Your task to perform on an android device: move an email to a new category in the gmail app Image 0: 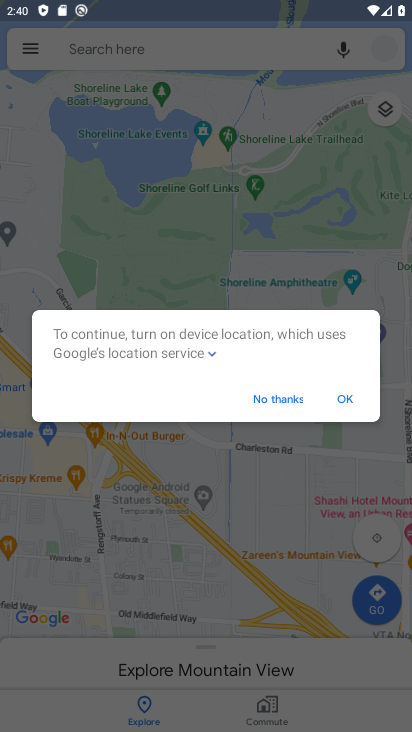
Step 0: drag from (296, 494) to (238, 218)
Your task to perform on an android device: move an email to a new category in the gmail app Image 1: 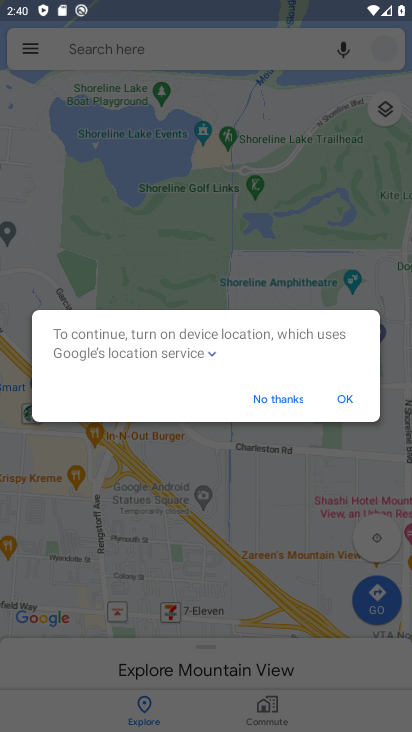
Step 1: click (346, 394)
Your task to perform on an android device: move an email to a new category in the gmail app Image 2: 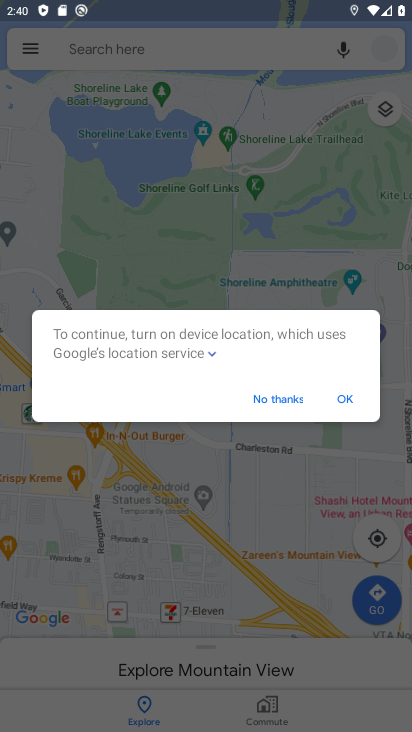
Step 2: press home button
Your task to perform on an android device: move an email to a new category in the gmail app Image 3: 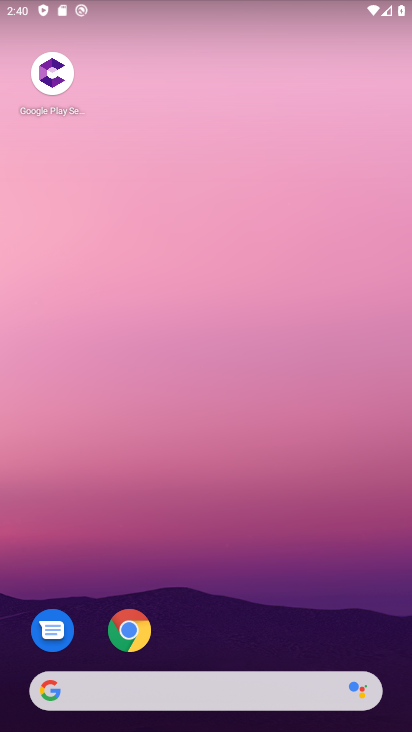
Step 3: drag from (342, 642) to (218, 264)
Your task to perform on an android device: move an email to a new category in the gmail app Image 4: 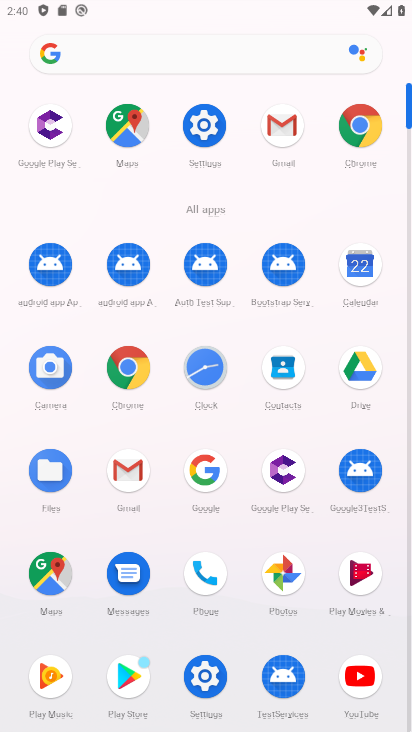
Step 4: click (124, 473)
Your task to perform on an android device: move an email to a new category in the gmail app Image 5: 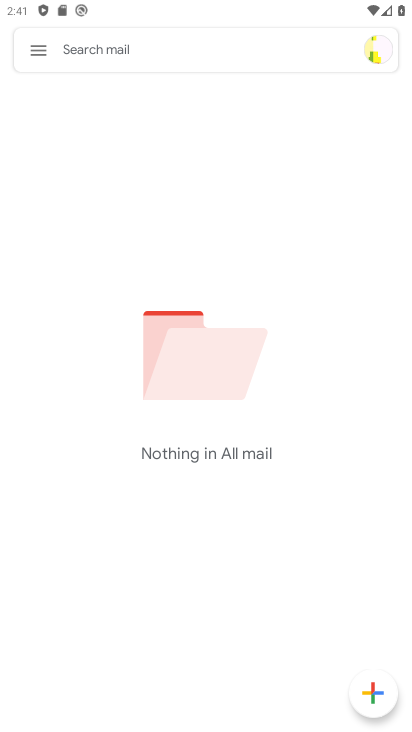
Step 5: click (38, 50)
Your task to perform on an android device: move an email to a new category in the gmail app Image 6: 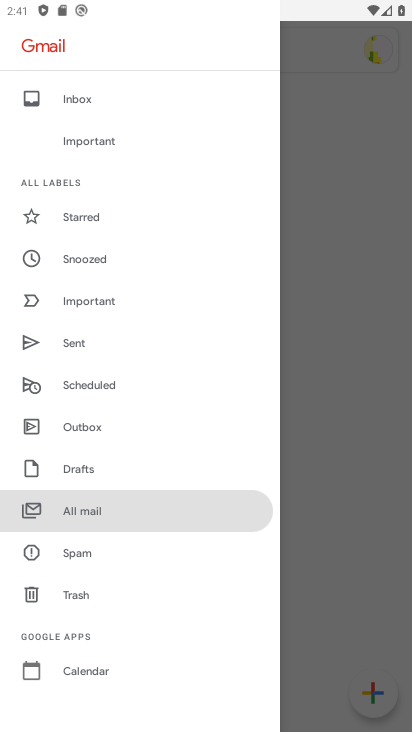
Step 6: task complete